Your task to perform on an android device: Open the phone app and click the voicemail tab. Image 0: 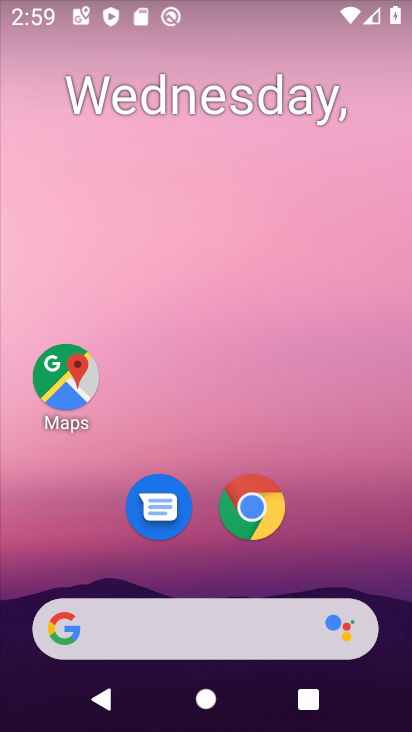
Step 0: drag from (327, 565) to (367, 135)
Your task to perform on an android device: Open the phone app and click the voicemail tab. Image 1: 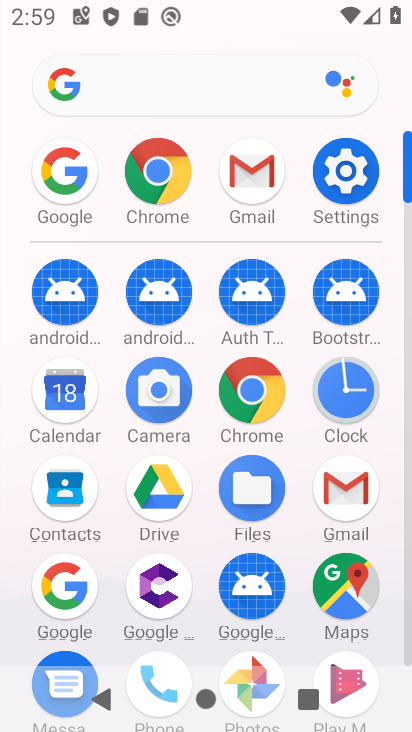
Step 1: drag from (293, 617) to (295, 318)
Your task to perform on an android device: Open the phone app and click the voicemail tab. Image 2: 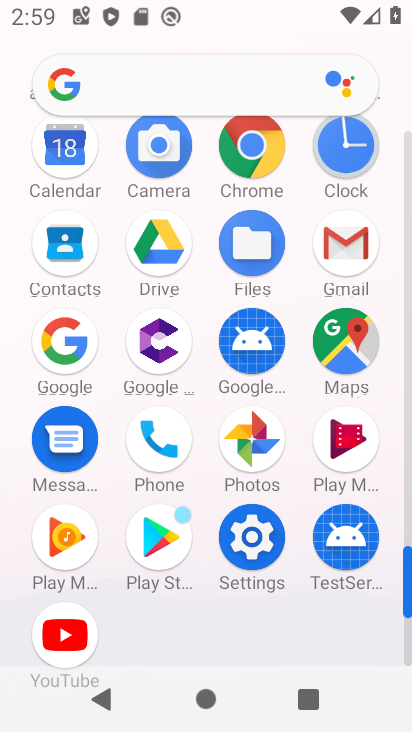
Step 2: click (163, 449)
Your task to perform on an android device: Open the phone app and click the voicemail tab. Image 3: 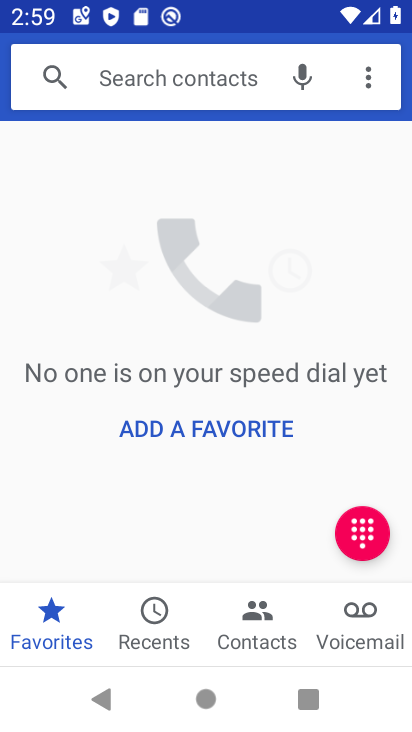
Step 3: click (341, 645)
Your task to perform on an android device: Open the phone app and click the voicemail tab. Image 4: 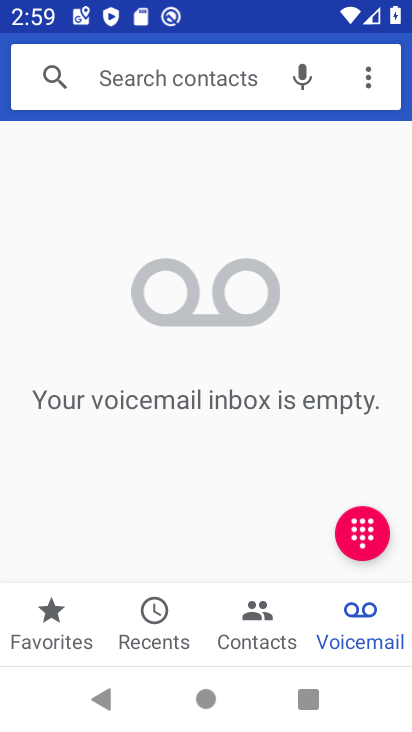
Step 4: task complete